Your task to perform on an android device: open a new tab in the chrome app Image 0: 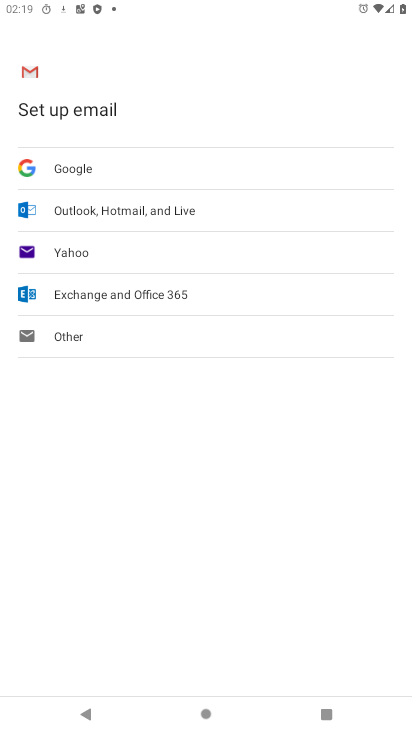
Step 0: press home button
Your task to perform on an android device: open a new tab in the chrome app Image 1: 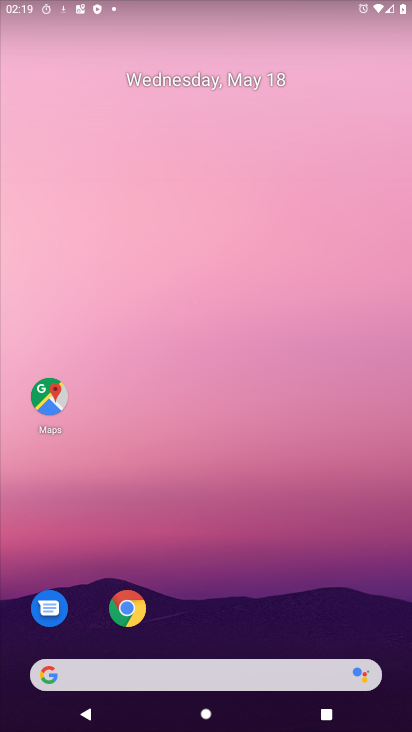
Step 1: drag from (217, 694) to (334, 243)
Your task to perform on an android device: open a new tab in the chrome app Image 2: 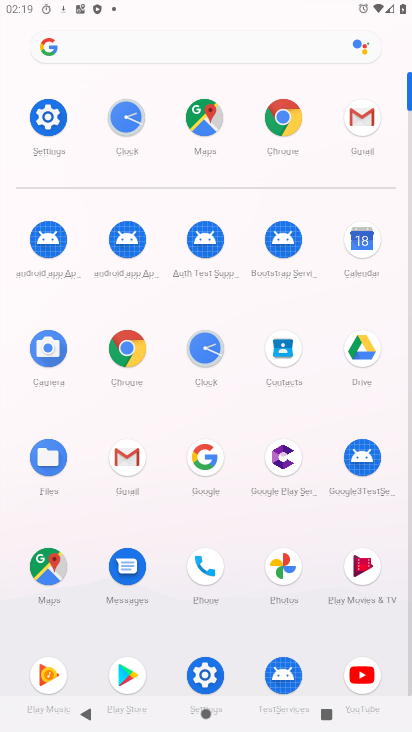
Step 2: click (133, 350)
Your task to perform on an android device: open a new tab in the chrome app Image 3: 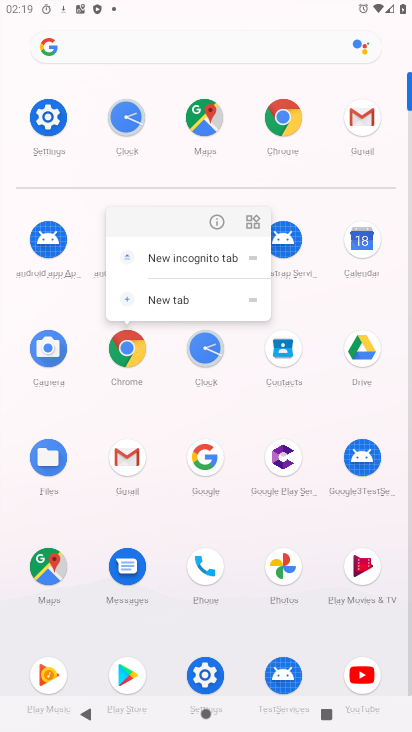
Step 3: click (137, 345)
Your task to perform on an android device: open a new tab in the chrome app Image 4: 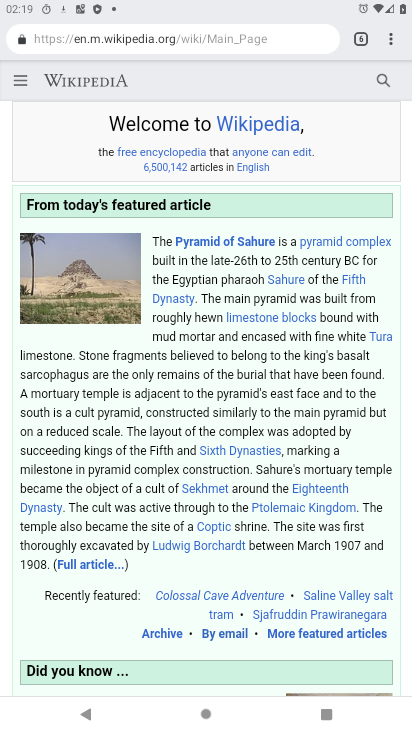
Step 4: click (360, 43)
Your task to perform on an android device: open a new tab in the chrome app Image 5: 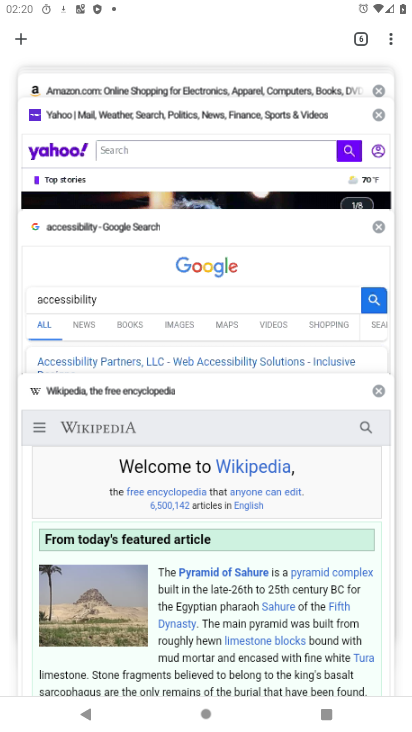
Step 5: click (23, 39)
Your task to perform on an android device: open a new tab in the chrome app Image 6: 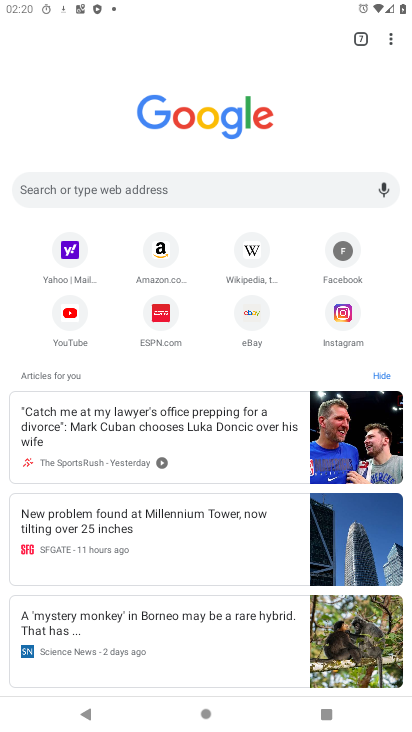
Step 6: task complete